Your task to perform on an android device: Go to privacy settings Image 0: 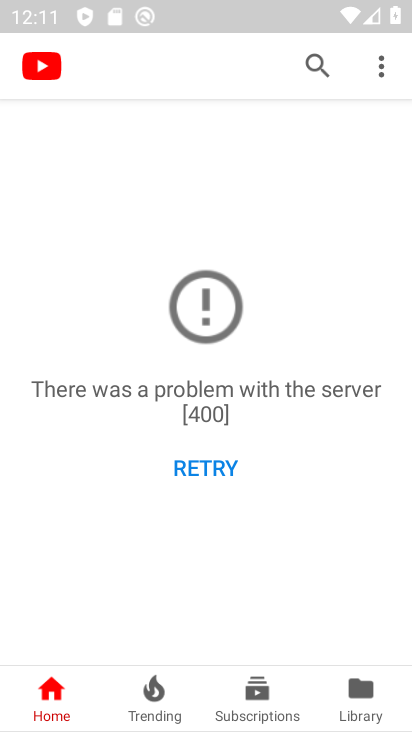
Step 0: press home button
Your task to perform on an android device: Go to privacy settings Image 1: 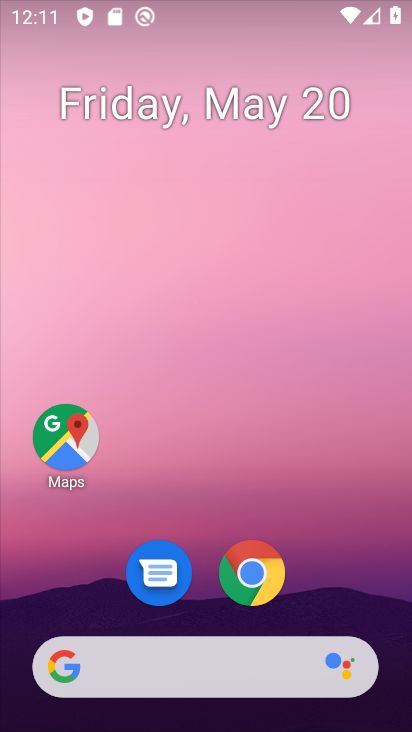
Step 1: drag from (300, 611) to (376, 320)
Your task to perform on an android device: Go to privacy settings Image 2: 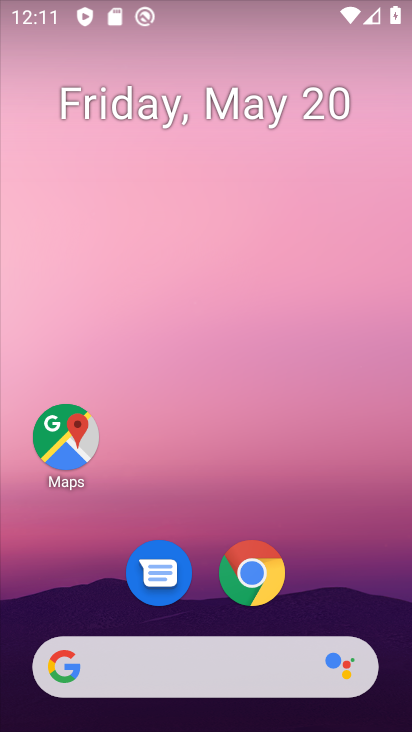
Step 2: drag from (224, 621) to (275, 0)
Your task to perform on an android device: Go to privacy settings Image 3: 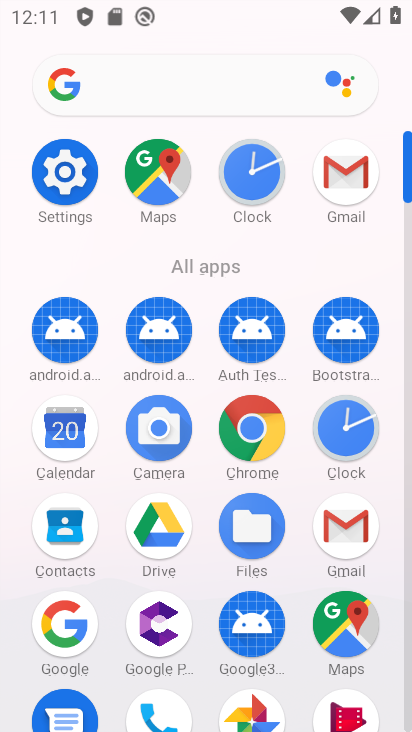
Step 3: click (59, 176)
Your task to perform on an android device: Go to privacy settings Image 4: 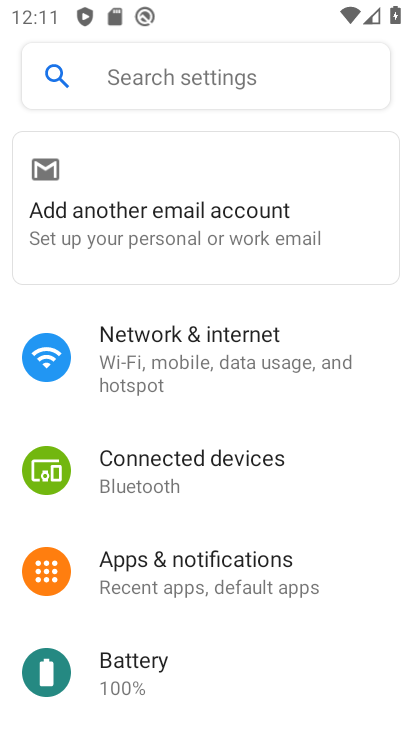
Step 4: drag from (84, 567) to (101, 275)
Your task to perform on an android device: Go to privacy settings Image 5: 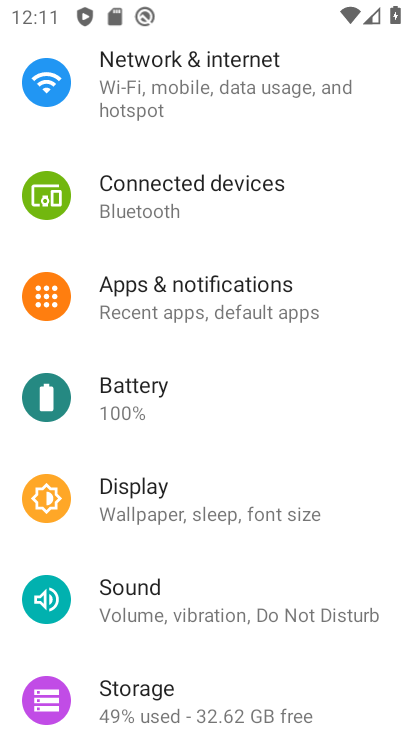
Step 5: drag from (212, 444) to (205, 192)
Your task to perform on an android device: Go to privacy settings Image 6: 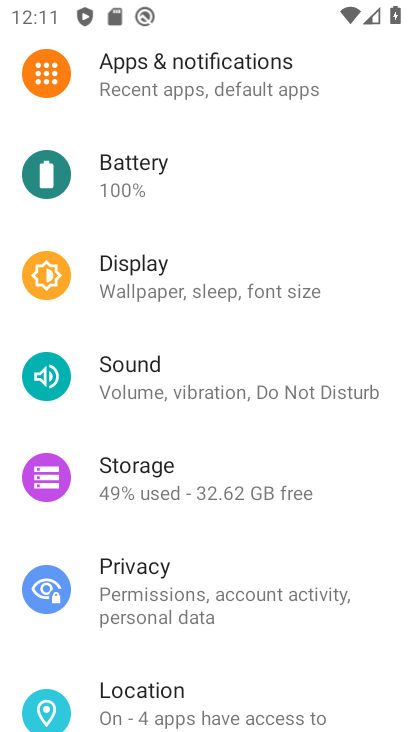
Step 6: drag from (183, 644) to (202, 344)
Your task to perform on an android device: Go to privacy settings Image 7: 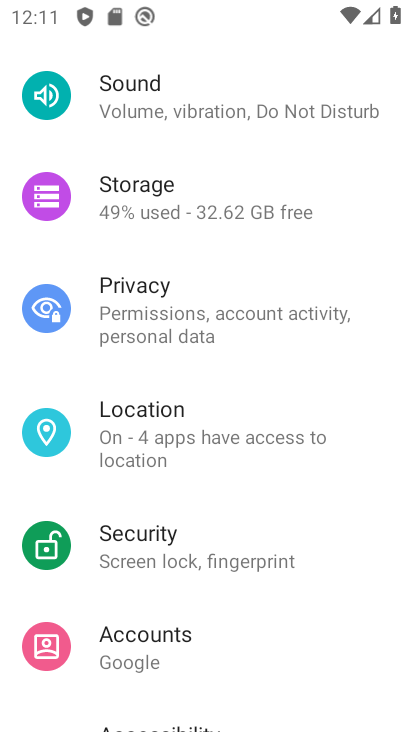
Step 7: click (186, 311)
Your task to perform on an android device: Go to privacy settings Image 8: 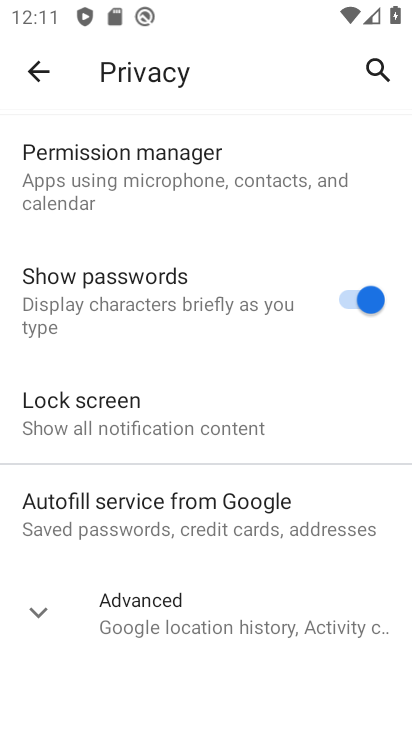
Step 8: task complete